Your task to perform on an android device: Open the Play Movies app and select the watchlist tab. Image 0: 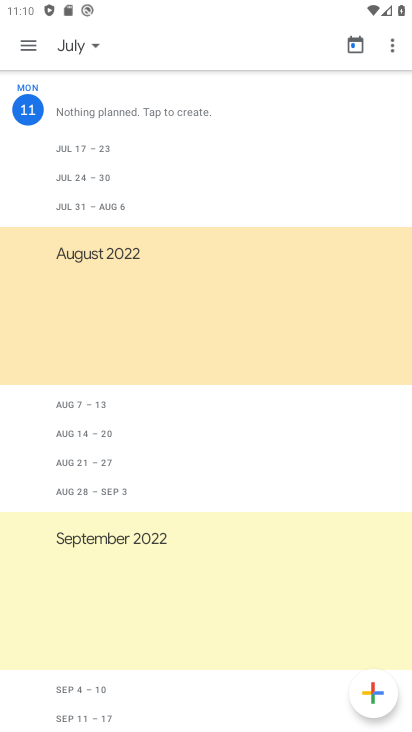
Step 0: press home button
Your task to perform on an android device: Open the Play Movies app and select the watchlist tab. Image 1: 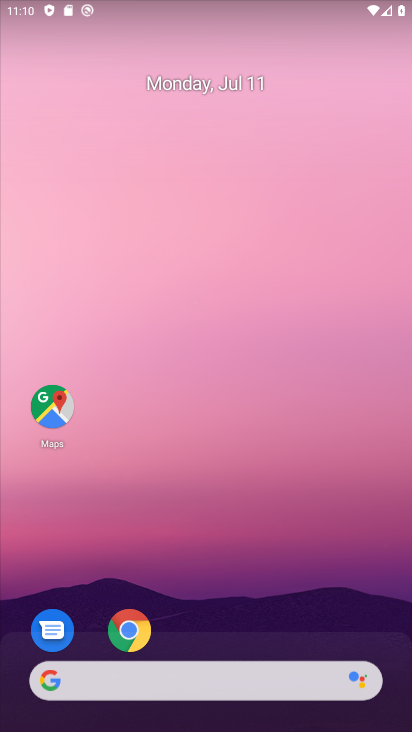
Step 1: drag from (192, 684) to (256, 88)
Your task to perform on an android device: Open the Play Movies app and select the watchlist tab. Image 2: 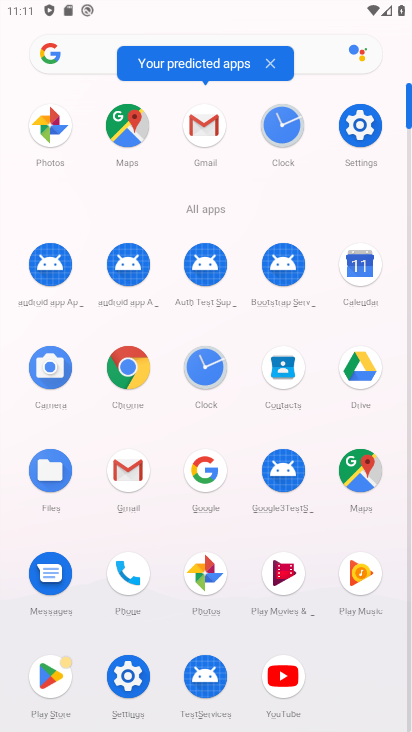
Step 2: click (286, 577)
Your task to perform on an android device: Open the Play Movies app and select the watchlist tab. Image 3: 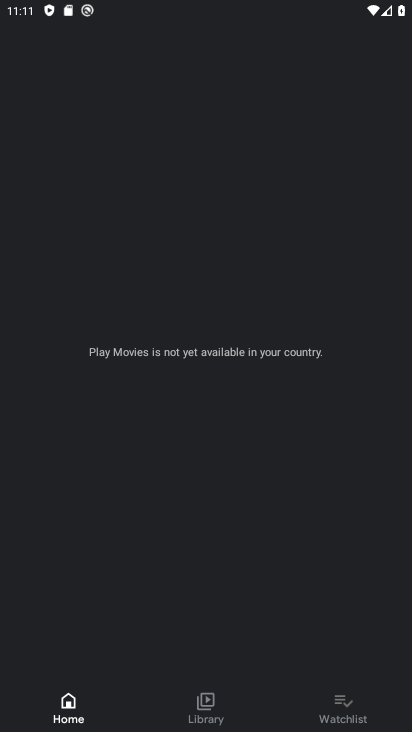
Step 3: click (341, 700)
Your task to perform on an android device: Open the Play Movies app and select the watchlist tab. Image 4: 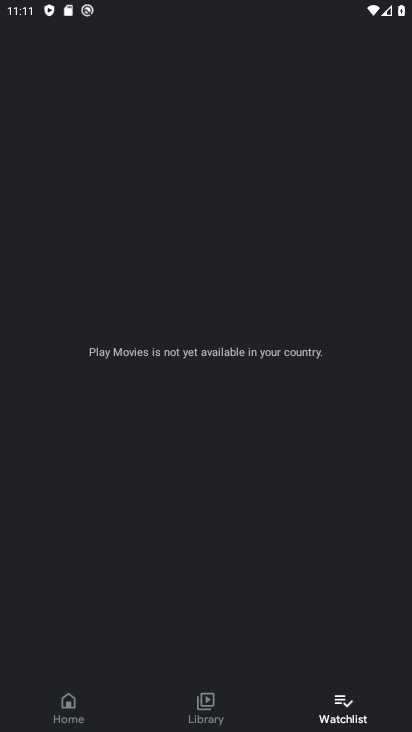
Step 4: task complete